Your task to perform on an android device: Go to Android settings Image 0: 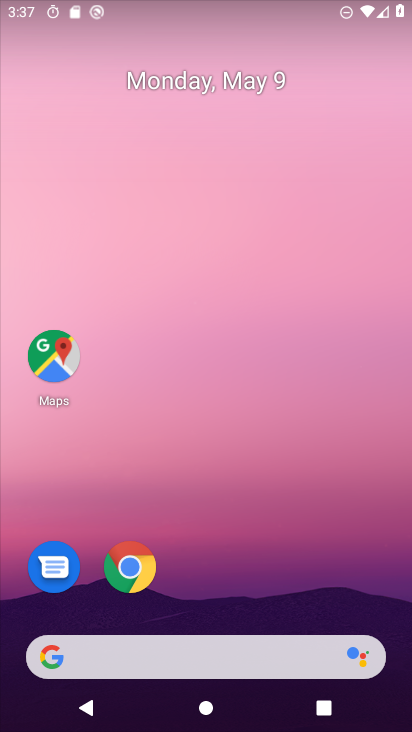
Step 0: drag from (287, 574) to (288, 1)
Your task to perform on an android device: Go to Android settings Image 1: 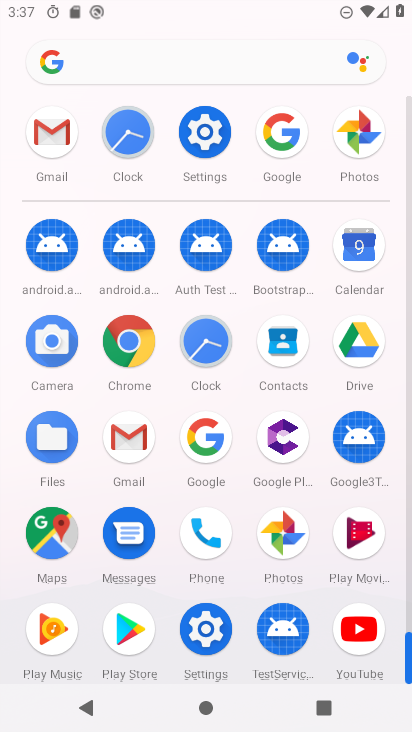
Step 1: click (208, 126)
Your task to perform on an android device: Go to Android settings Image 2: 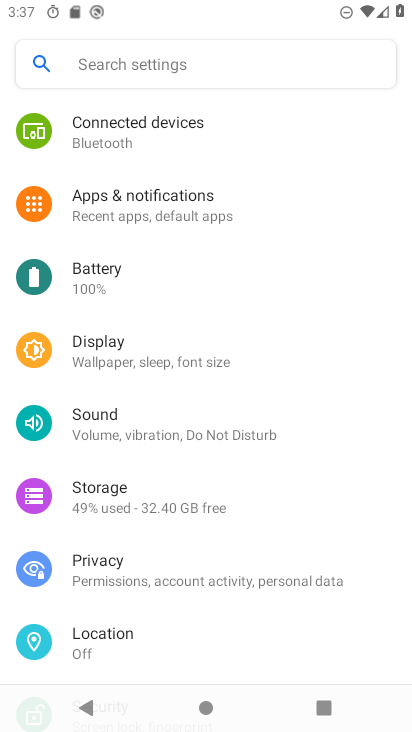
Step 2: drag from (227, 595) to (238, 187)
Your task to perform on an android device: Go to Android settings Image 3: 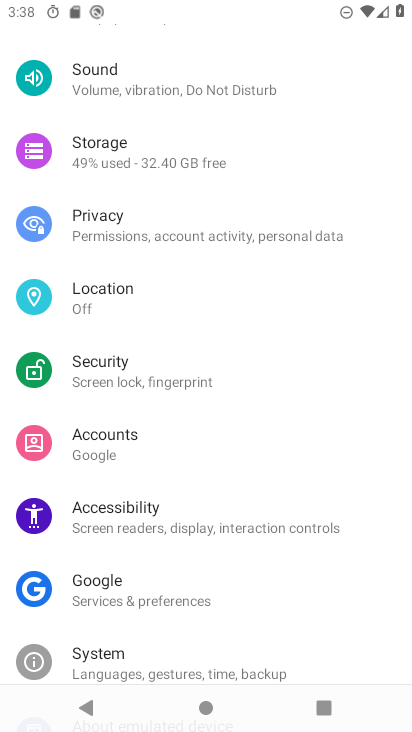
Step 3: drag from (259, 542) to (255, 217)
Your task to perform on an android device: Go to Android settings Image 4: 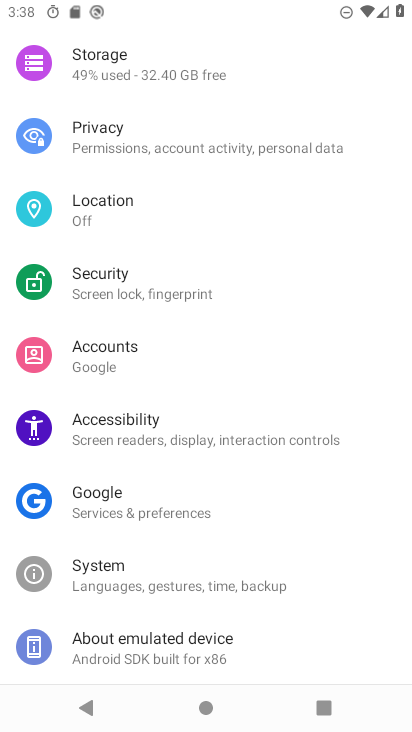
Step 4: click (129, 640)
Your task to perform on an android device: Go to Android settings Image 5: 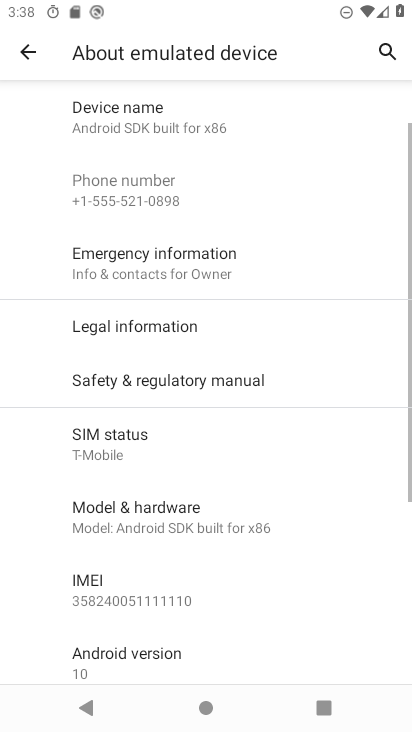
Step 5: click (129, 645)
Your task to perform on an android device: Go to Android settings Image 6: 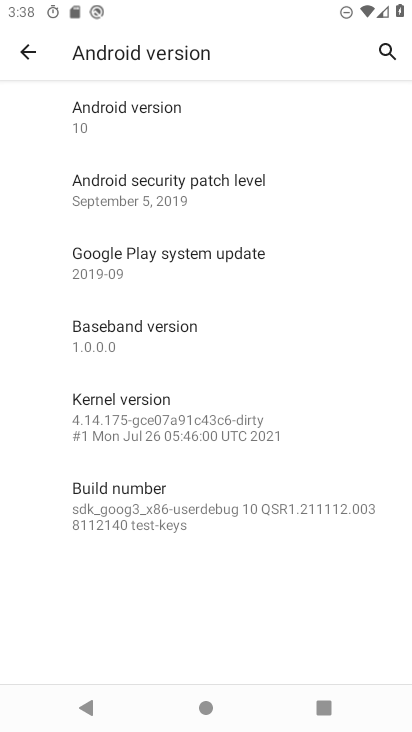
Step 6: task complete